Your task to perform on an android device: change notification settings in the gmail app Image 0: 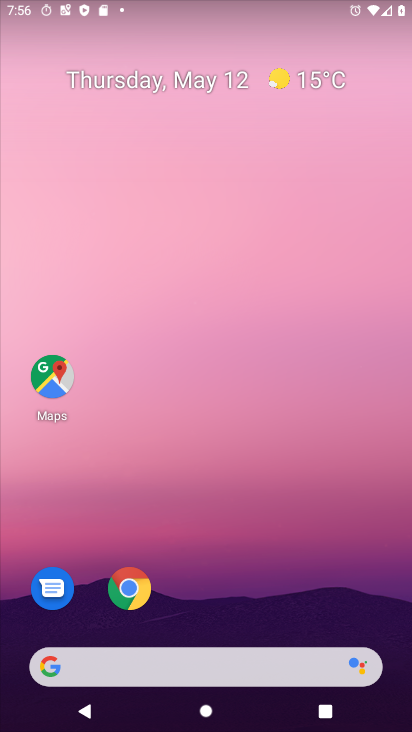
Step 0: drag from (201, 631) to (242, 287)
Your task to perform on an android device: change notification settings in the gmail app Image 1: 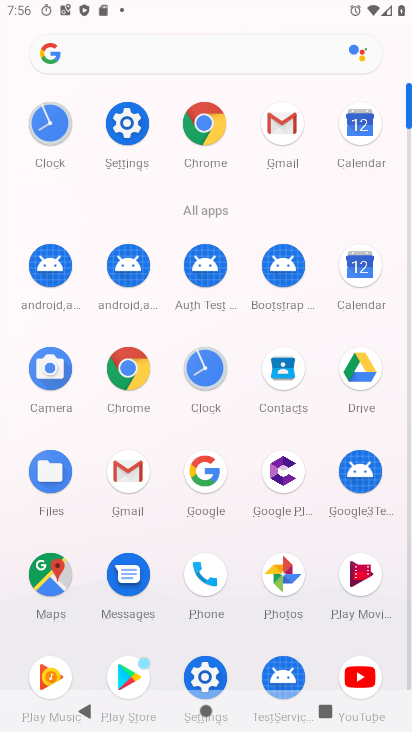
Step 1: click (140, 478)
Your task to perform on an android device: change notification settings in the gmail app Image 2: 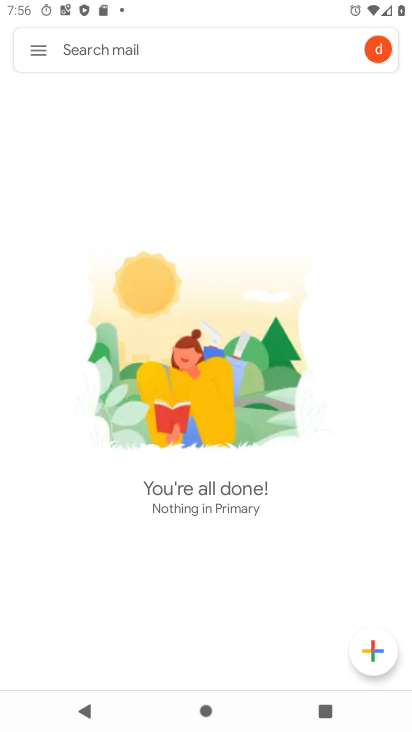
Step 2: click (39, 53)
Your task to perform on an android device: change notification settings in the gmail app Image 3: 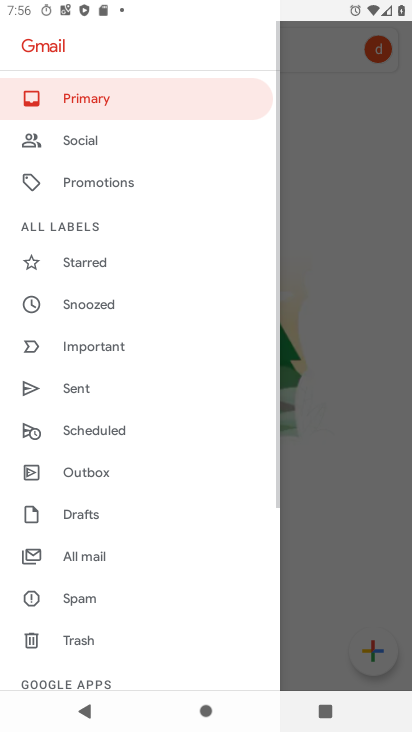
Step 3: drag from (123, 577) to (216, 244)
Your task to perform on an android device: change notification settings in the gmail app Image 4: 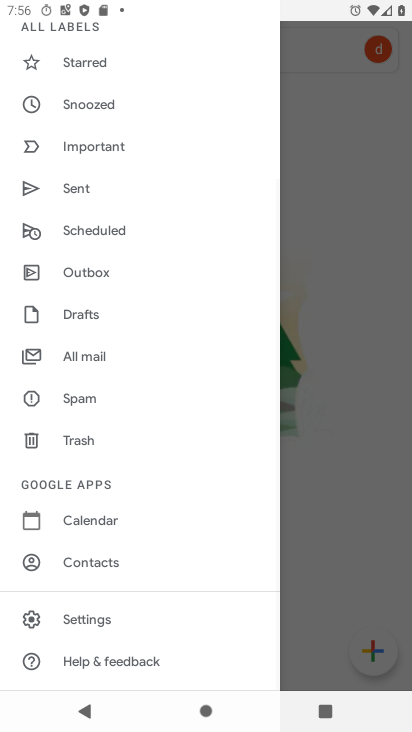
Step 4: click (110, 616)
Your task to perform on an android device: change notification settings in the gmail app Image 5: 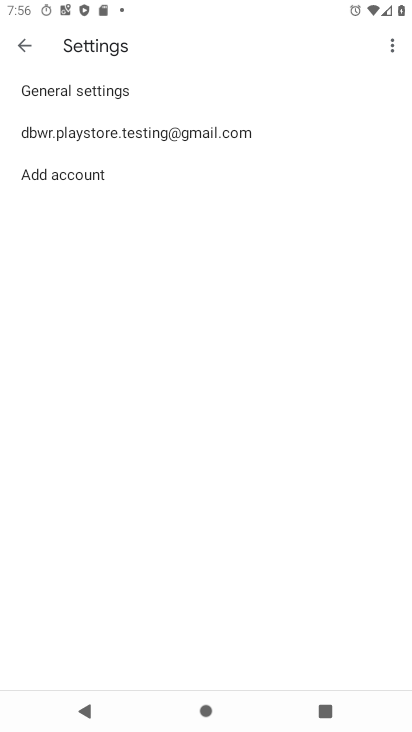
Step 5: click (127, 131)
Your task to perform on an android device: change notification settings in the gmail app Image 6: 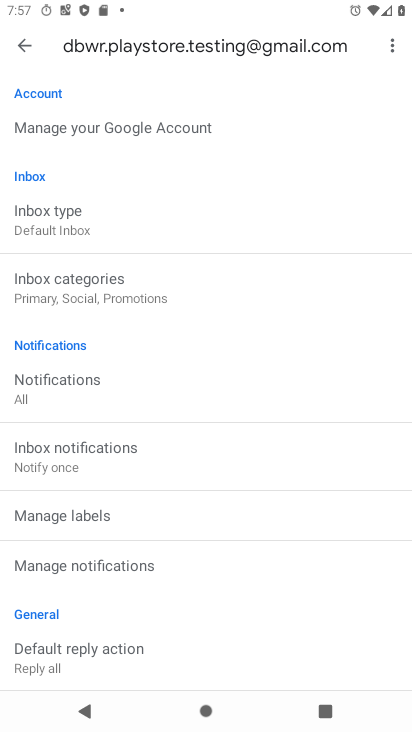
Step 6: click (68, 565)
Your task to perform on an android device: change notification settings in the gmail app Image 7: 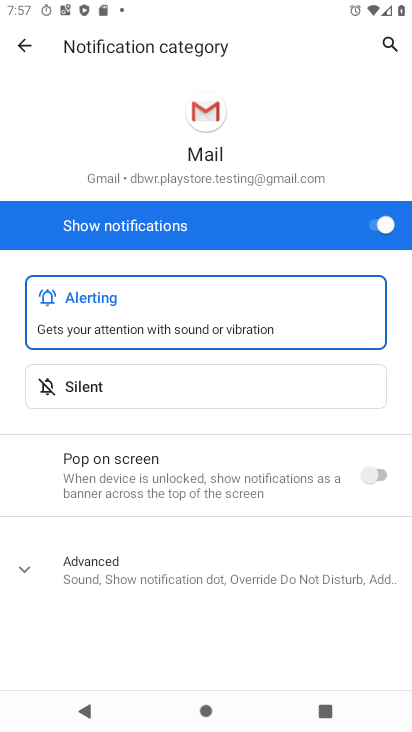
Step 7: click (57, 382)
Your task to perform on an android device: change notification settings in the gmail app Image 8: 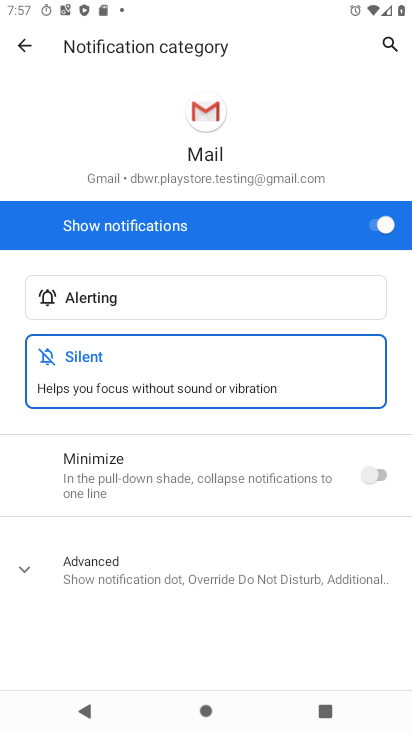
Step 8: task complete